Your task to perform on an android device: turn off data saver in the chrome app Image 0: 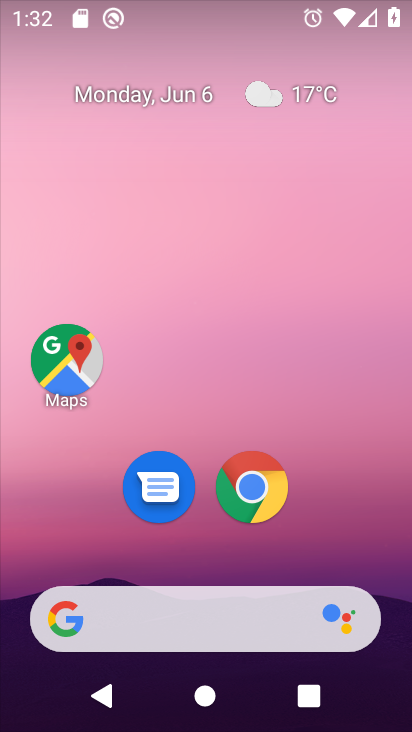
Step 0: click (252, 470)
Your task to perform on an android device: turn off data saver in the chrome app Image 1: 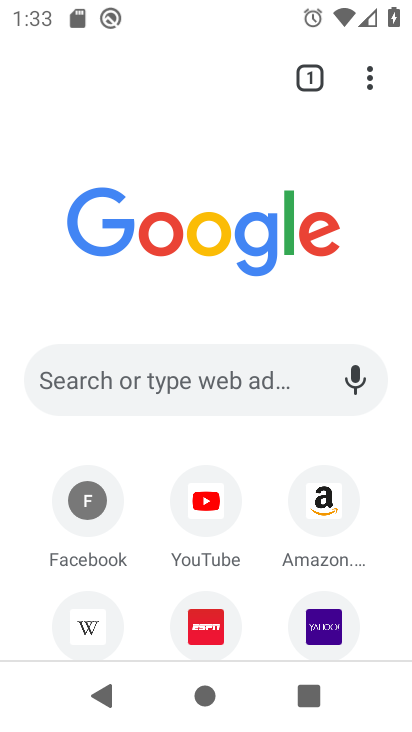
Step 1: click (370, 76)
Your task to perform on an android device: turn off data saver in the chrome app Image 2: 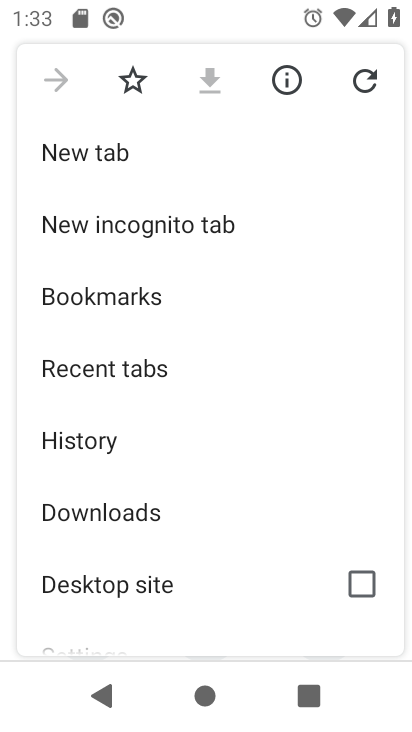
Step 2: drag from (205, 506) to (266, 120)
Your task to perform on an android device: turn off data saver in the chrome app Image 3: 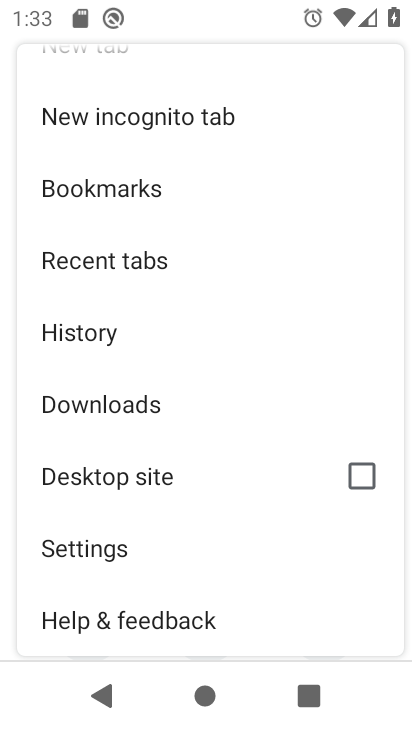
Step 3: click (69, 549)
Your task to perform on an android device: turn off data saver in the chrome app Image 4: 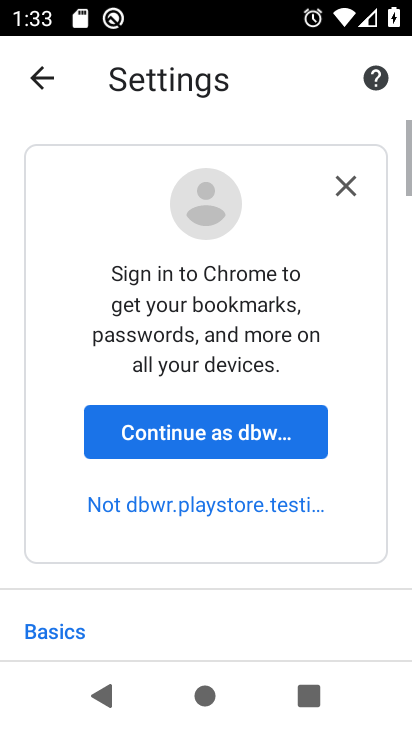
Step 4: drag from (162, 566) to (207, 126)
Your task to perform on an android device: turn off data saver in the chrome app Image 5: 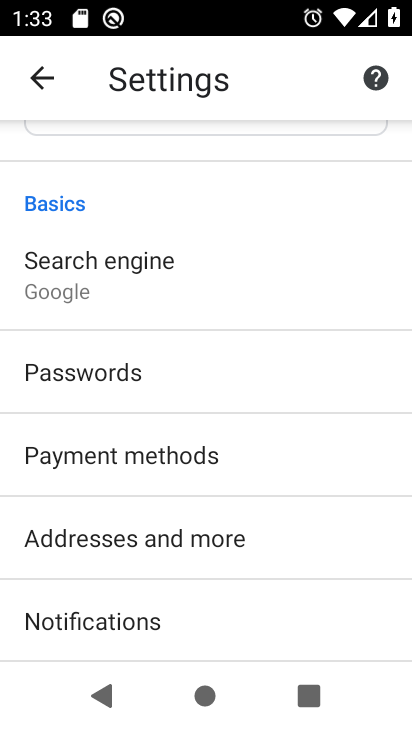
Step 5: drag from (294, 616) to (354, 182)
Your task to perform on an android device: turn off data saver in the chrome app Image 6: 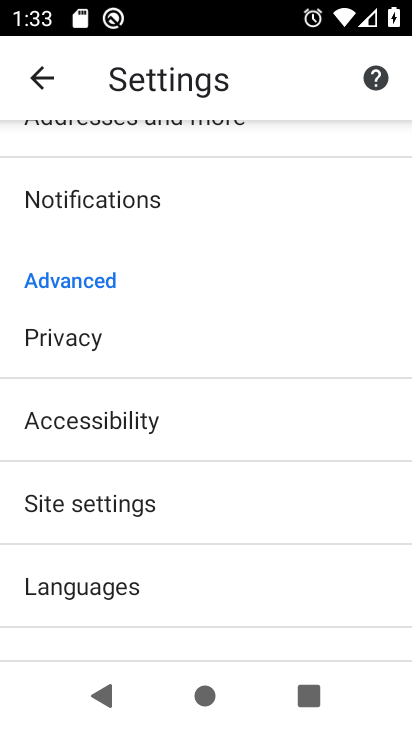
Step 6: drag from (223, 547) to (330, 151)
Your task to perform on an android device: turn off data saver in the chrome app Image 7: 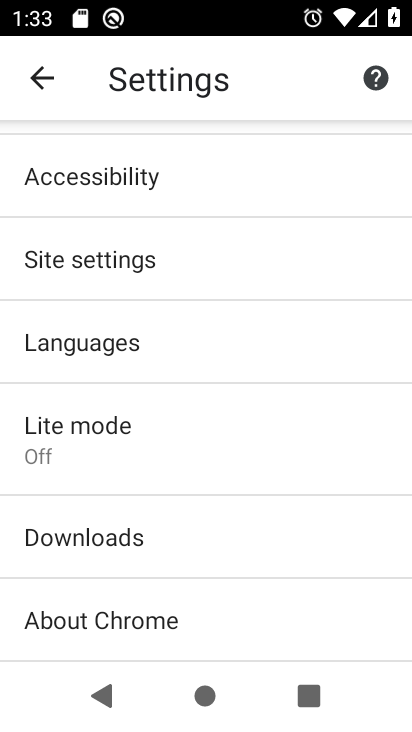
Step 7: click (154, 444)
Your task to perform on an android device: turn off data saver in the chrome app Image 8: 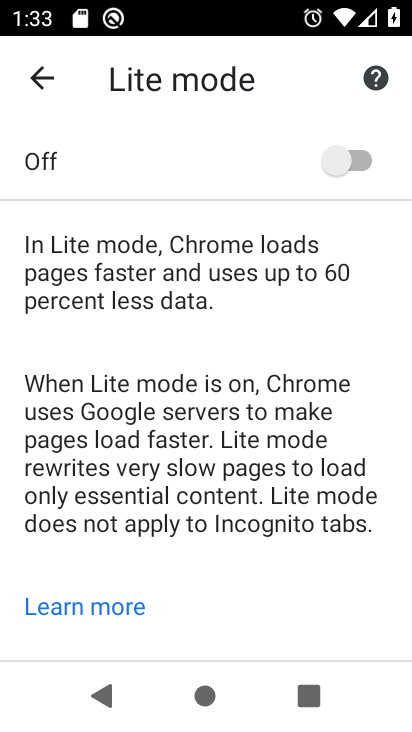
Step 8: task complete